Your task to perform on an android device: Go to ESPN.com Image 0: 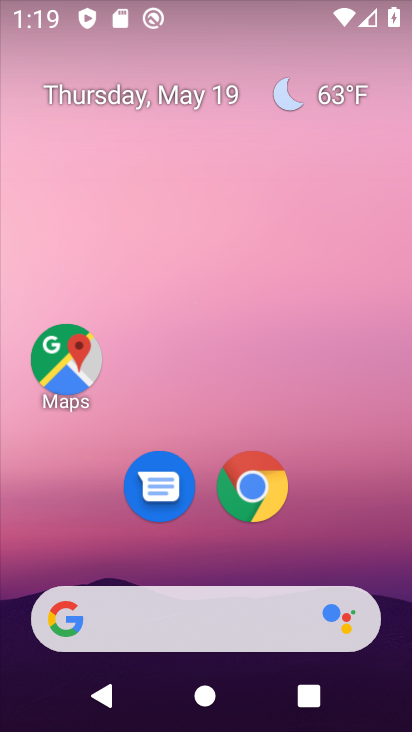
Step 0: press home button
Your task to perform on an android device: Go to ESPN.com Image 1: 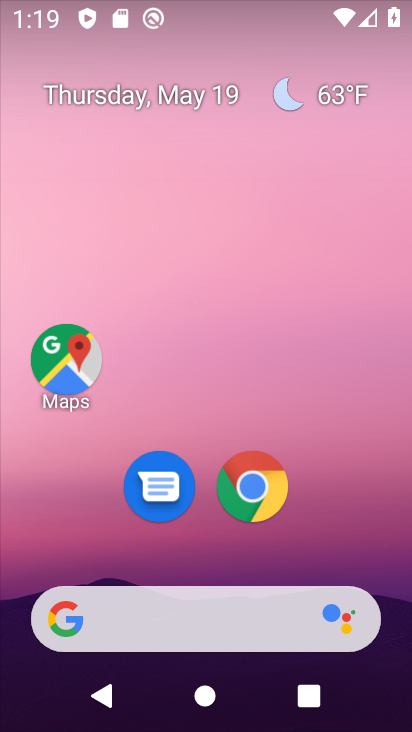
Step 1: click (251, 479)
Your task to perform on an android device: Go to ESPN.com Image 2: 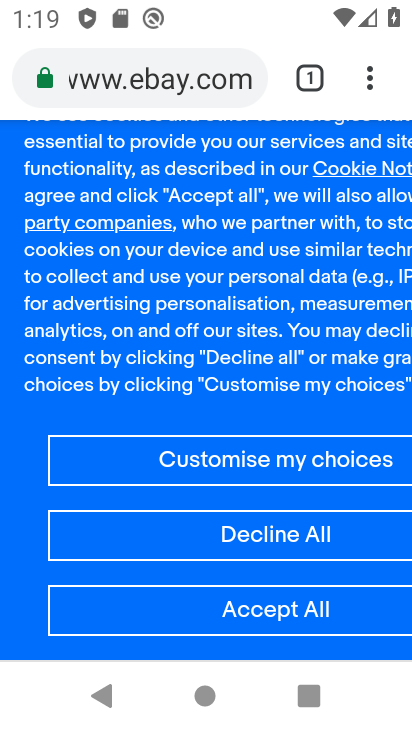
Step 2: click (313, 75)
Your task to perform on an android device: Go to ESPN.com Image 3: 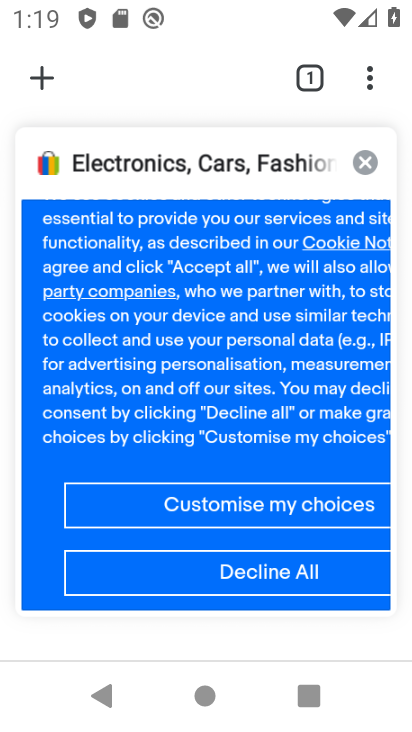
Step 3: click (35, 78)
Your task to perform on an android device: Go to ESPN.com Image 4: 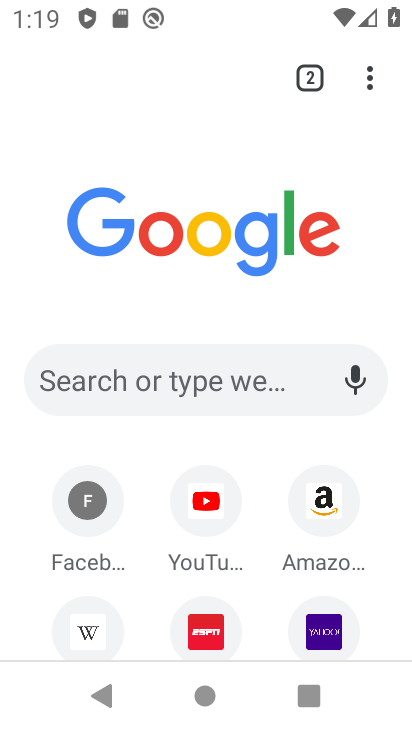
Step 4: click (218, 388)
Your task to perform on an android device: Go to ESPN.com Image 5: 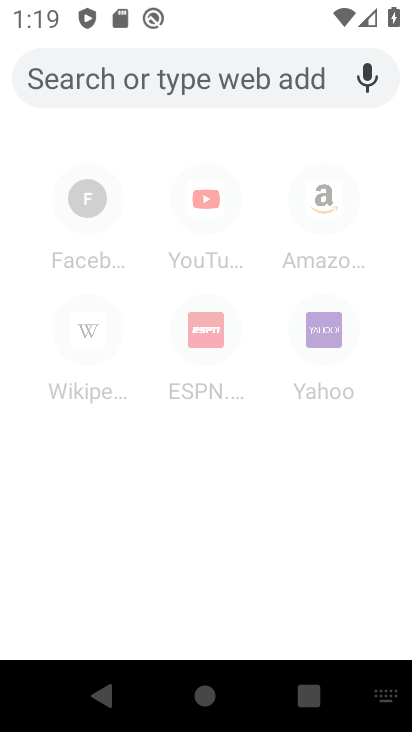
Step 5: type "ESPN.com"
Your task to perform on an android device: Go to ESPN.com Image 6: 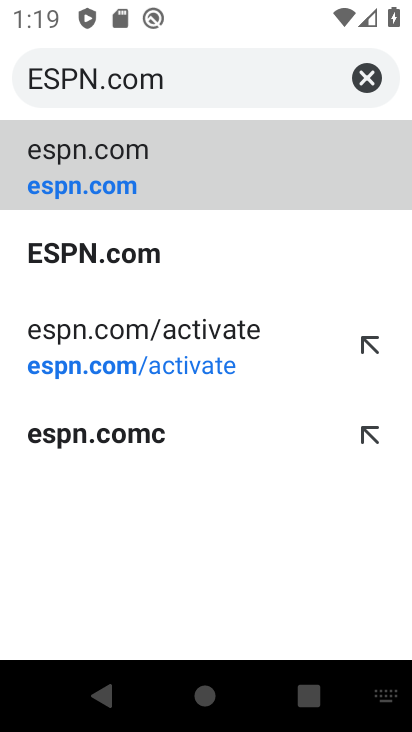
Step 6: click (115, 183)
Your task to perform on an android device: Go to ESPN.com Image 7: 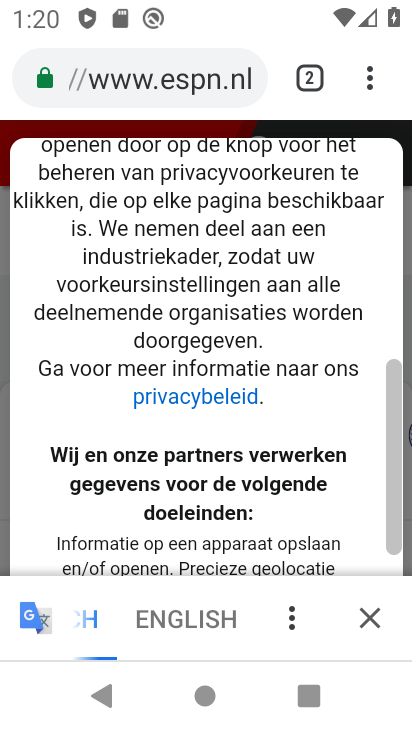
Step 7: task complete